Your task to perform on an android device: turn pop-ups off in chrome Image 0: 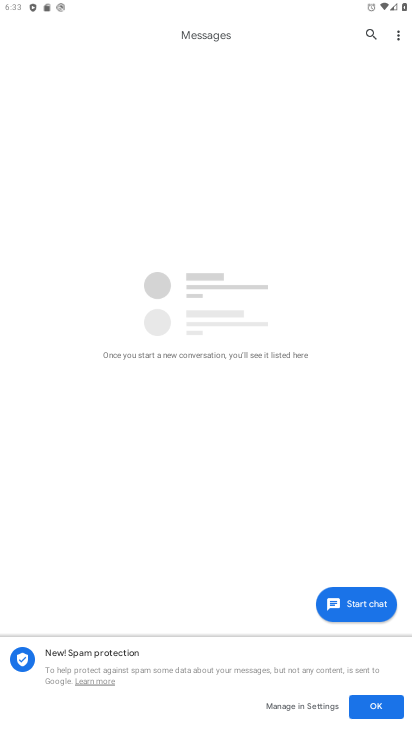
Step 0: press home button
Your task to perform on an android device: turn pop-ups off in chrome Image 1: 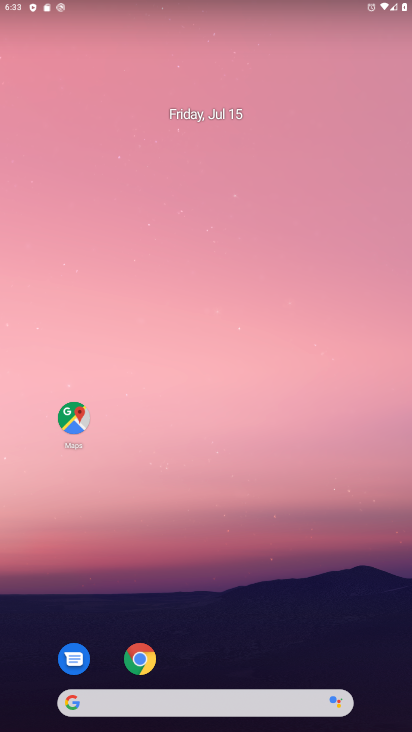
Step 1: click (141, 658)
Your task to perform on an android device: turn pop-ups off in chrome Image 2: 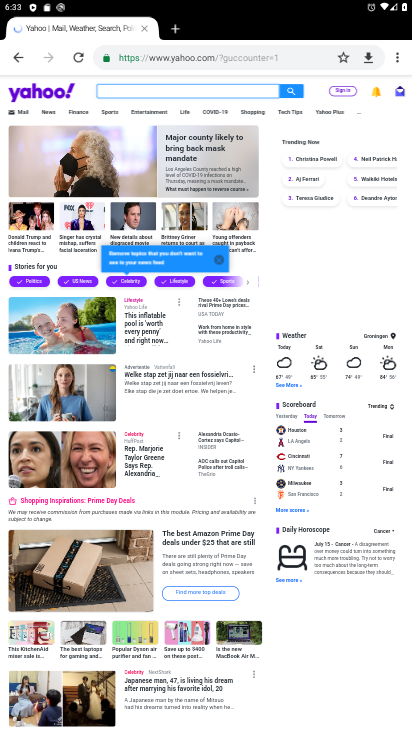
Step 2: click (398, 61)
Your task to perform on an android device: turn pop-ups off in chrome Image 3: 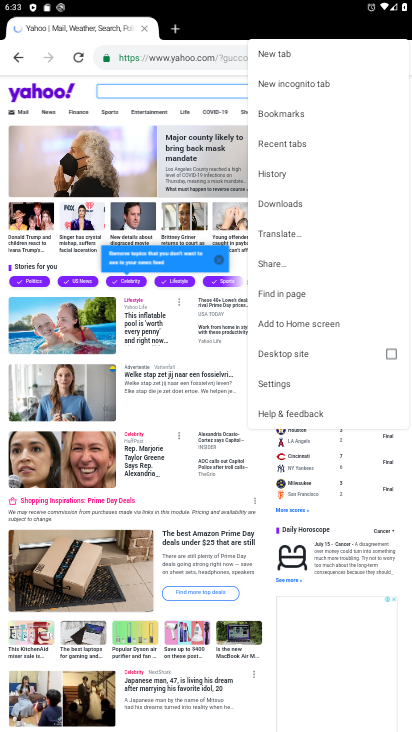
Step 3: click (282, 379)
Your task to perform on an android device: turn pop-ups off in chrome Image 4: 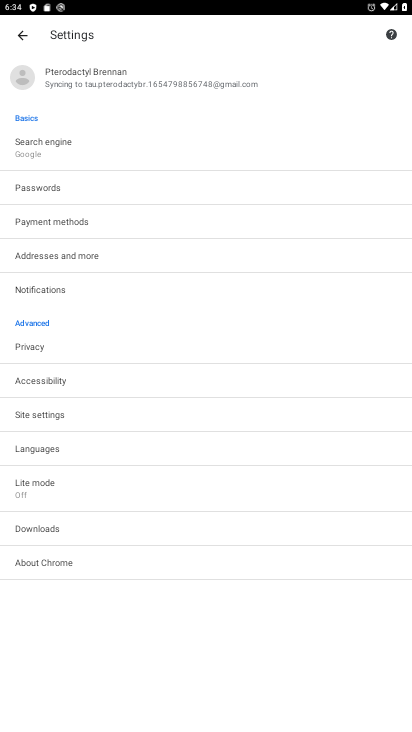
Step 4: click (42, 417)
Your task to perform on an android device: turn pop-ups off in chrome Image 5: 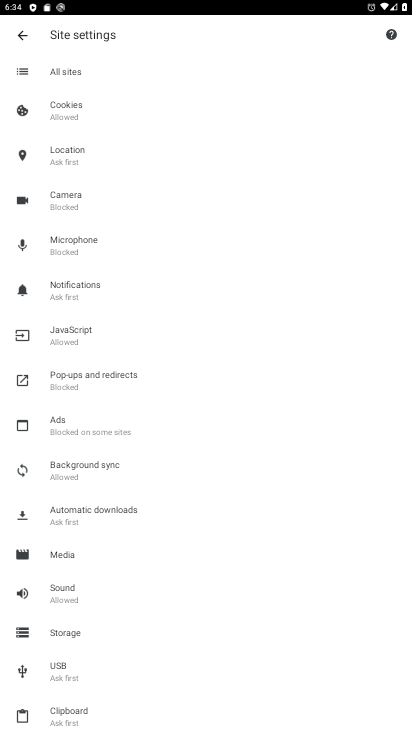
Step 5: click (81, 376)
Your task to perform on an android device: turn pop-ups off in chrome Image 6: 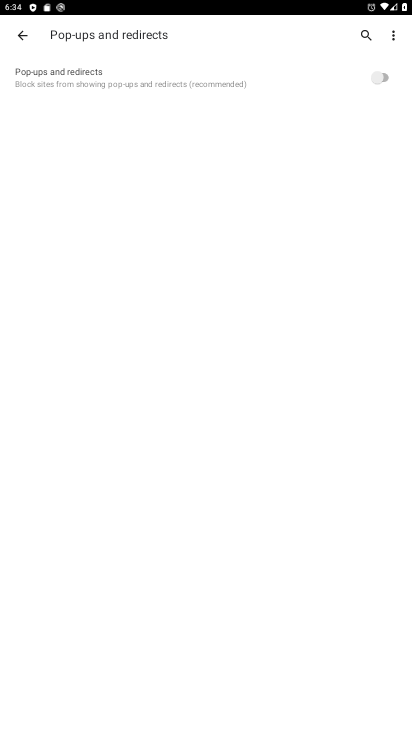
Step 6: task complete